Your task to perform on an android device: Is it going to rain tomorrow? Image 0: 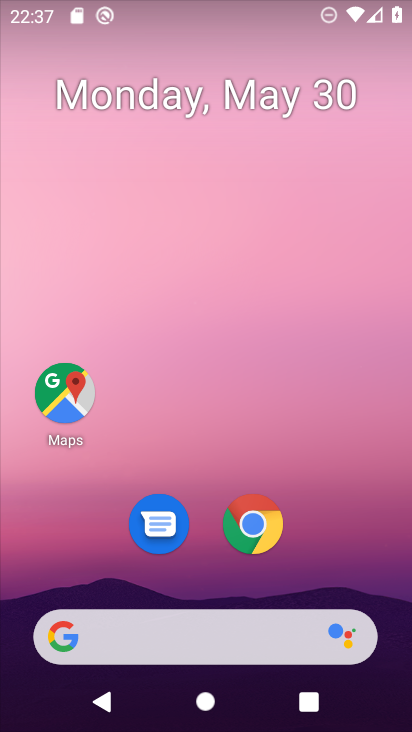
Step 0: click (220, 619)
Your task to perform on an android device: Is it going to rain tomorrow? Image 1: 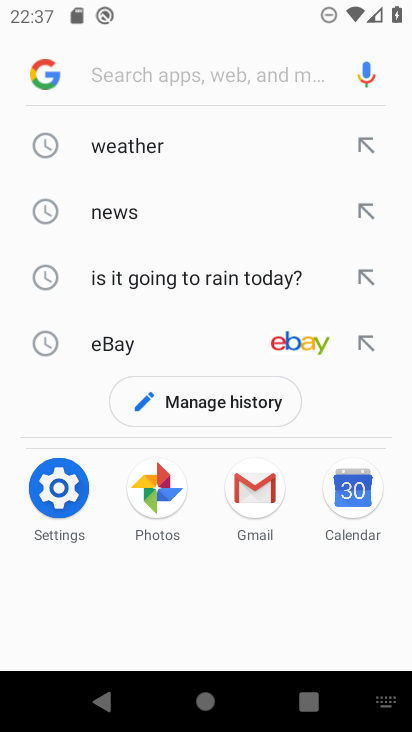
Step 1: click (131, 141)
Your task to perform on an android device: Is it going to rain tomorrow? Image 2: 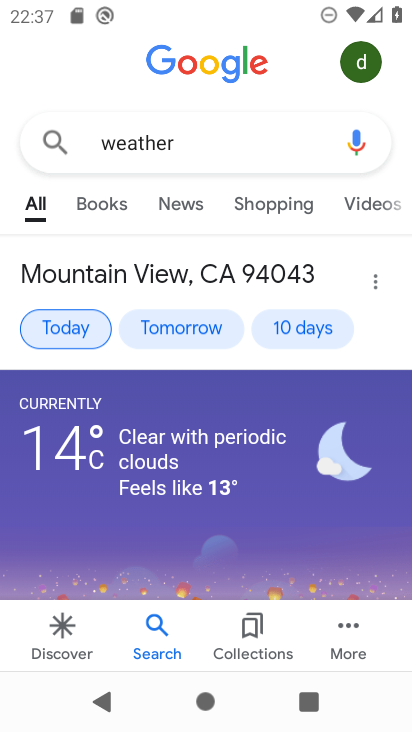
Step 2: click (80, 317)
Your task to perform on an android device: Is it going to rain tomorrow? Image 3: 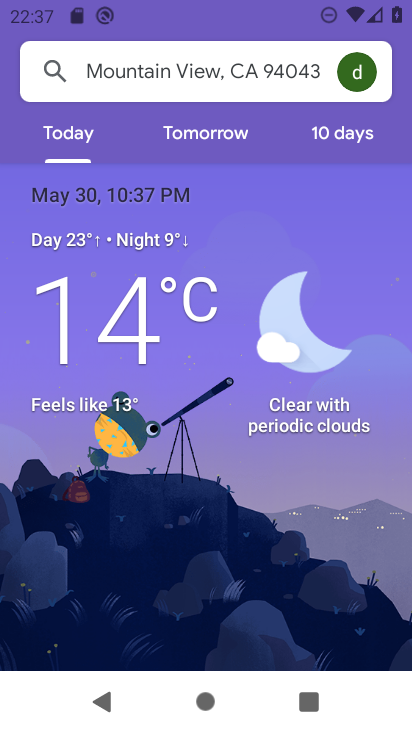
Step 3: click (242, 135)
Your task to perform on an android device: Is it going to rain tomorrow? Image 4: 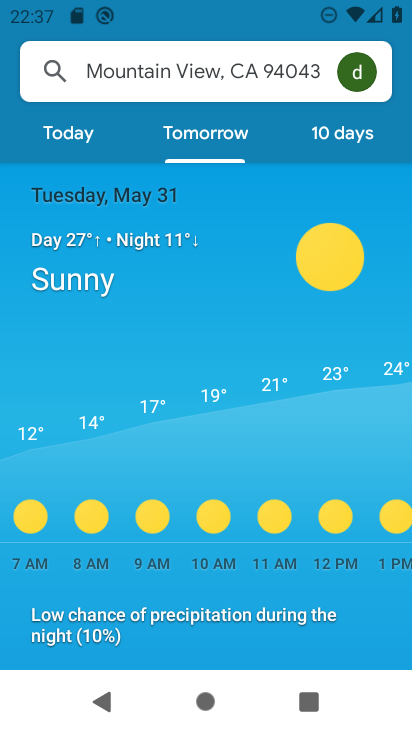
Step 4: task complete